Your task to perform on an android device: Open Google Maps and go to "Timeline" Image 0: 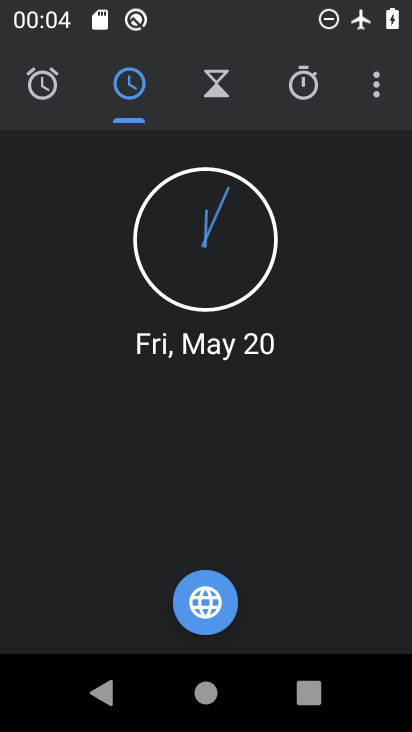
Step 0: press home button
Your task to perform on an android device: Open Google Maps and go to "Timeline" Image 1: 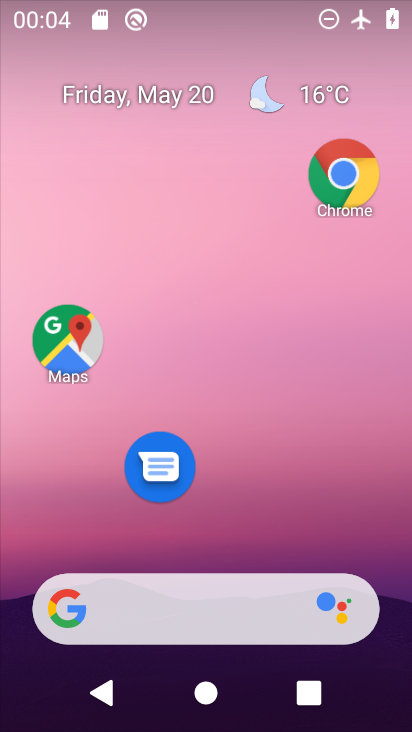
Step 1: drag from (250, 503) to (251, 169)
Your task to perform on an android device: Open Google Maps and go to "Timeline" Image 2: 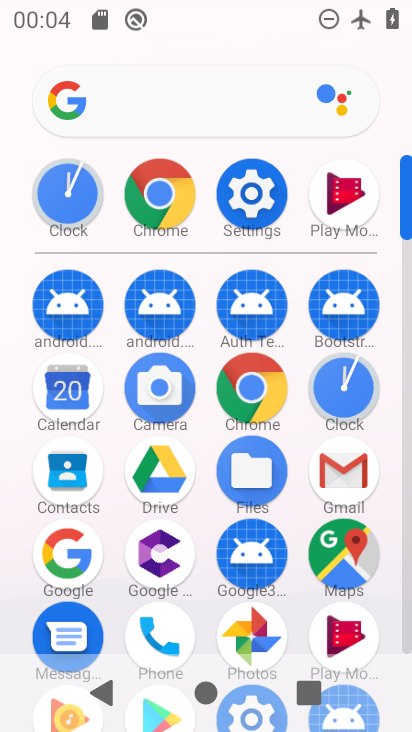
Step 2: click (341, 549)
Your task to perform on an android device: Open Google Maps and go to "Timeline" Image 3: 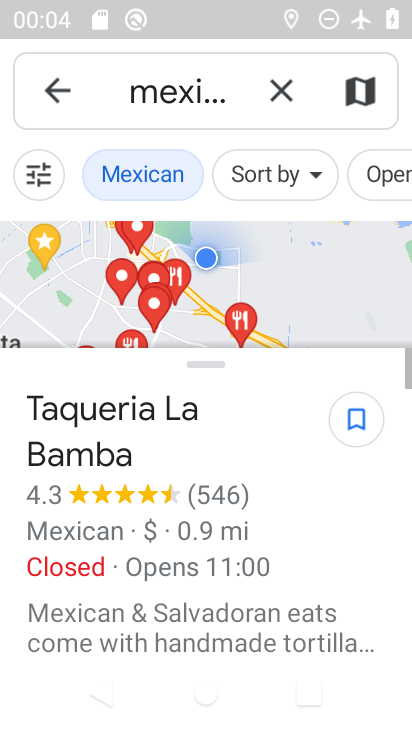
Step 3: click (274, 96)
Your task to perform on an android device: Open Google Maps and go to "Timeline" Image 4: 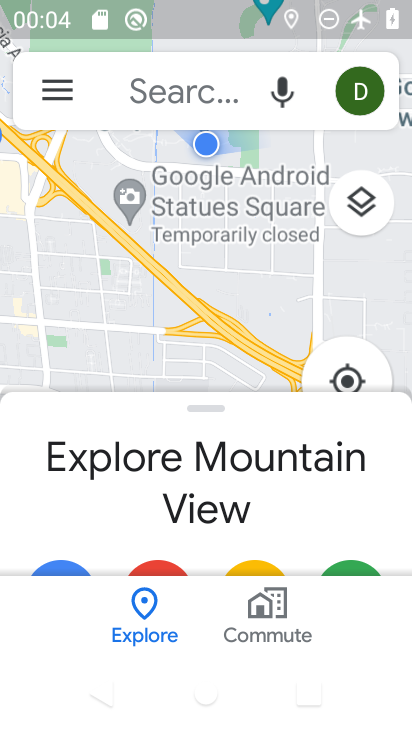
Step 4: click (61, 82)
Your task to perform on an android device: Open Google Maps and go to "Timeline" Image 5: 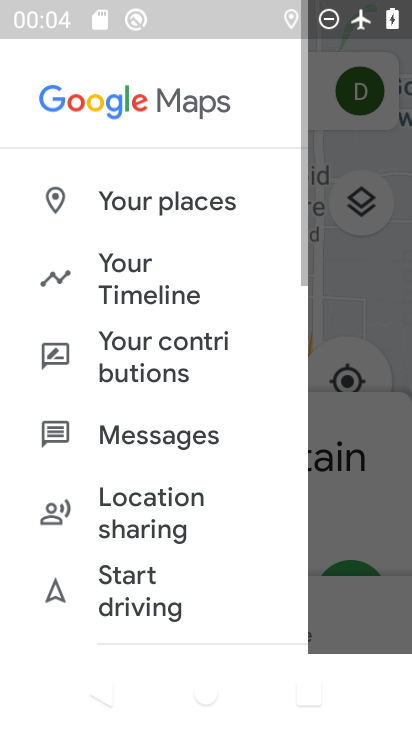
Step 5: click (159, 287)
Your task to perform on an android device: Open Google Maps and go to "Timeline" Image 6: 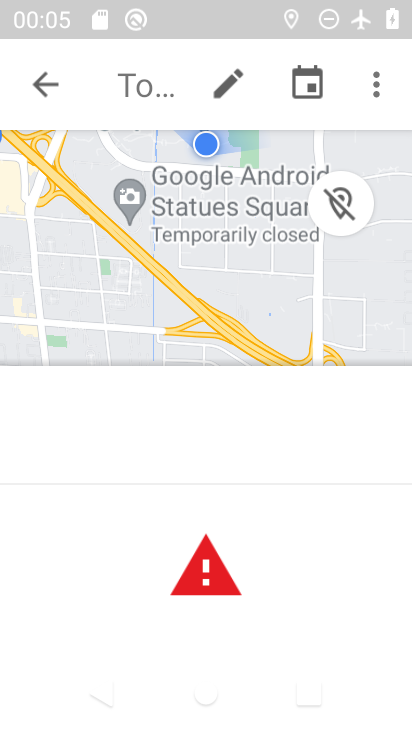
Step 6: task complete